Your task to perform on an android device: Go to privacy settings Image 0: 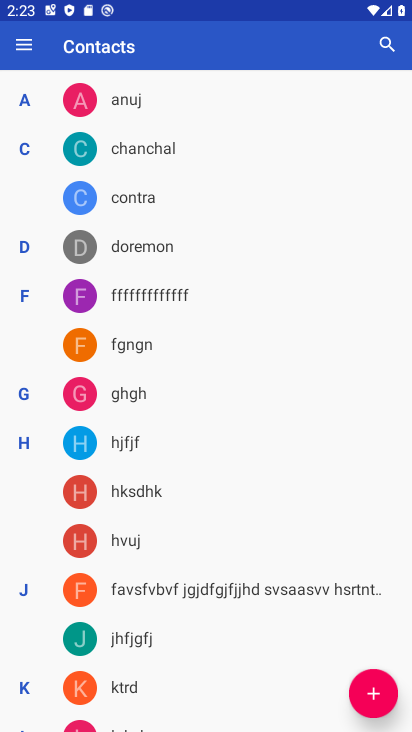
Step 0: press home button
Your task to perform on an android device: Go to privacy settings Image 1: 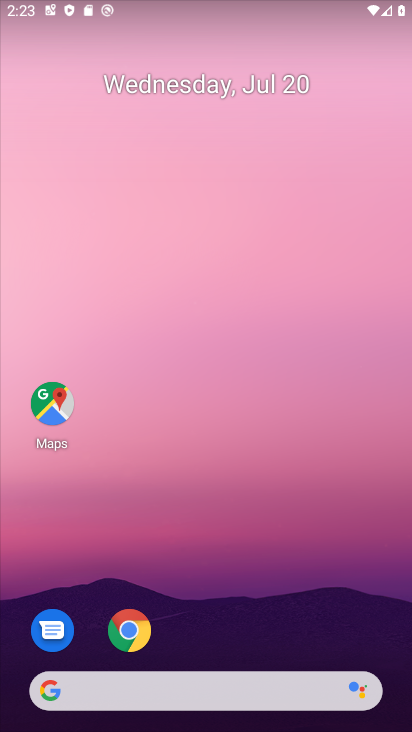
Step 1: drag from (375, 579) to (357, 131)
Your task to perform on an android device: Go to privacy settings Image 2: 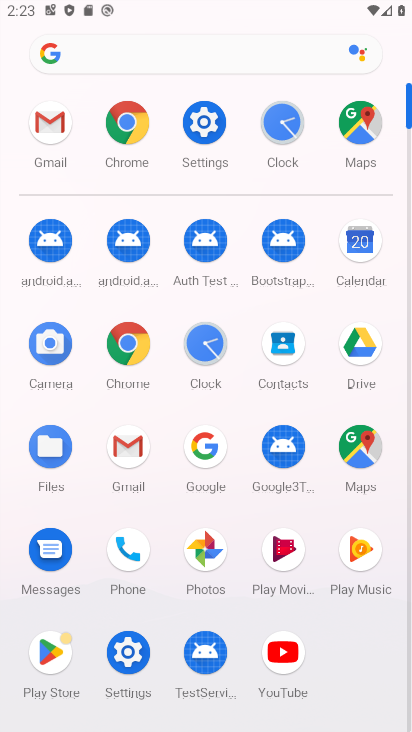
Step 2: click (213, 135)
Your task to perform on an android device: Go to privacy settings Image 3: 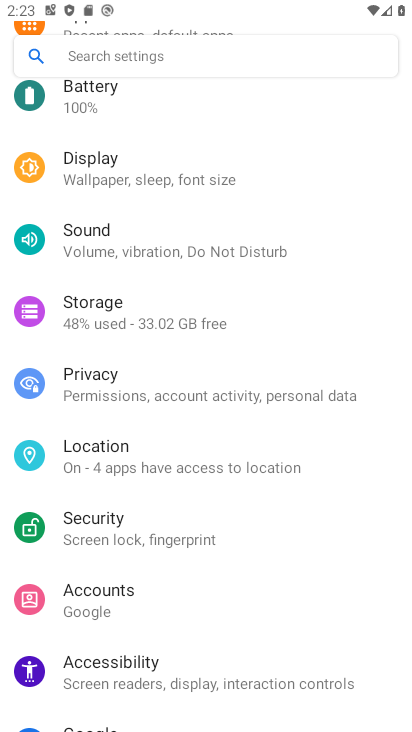
Step 3: drag from (330, 180) to (334, 269)
Your task to perform on an android device: Go to privacy settings Image 4: 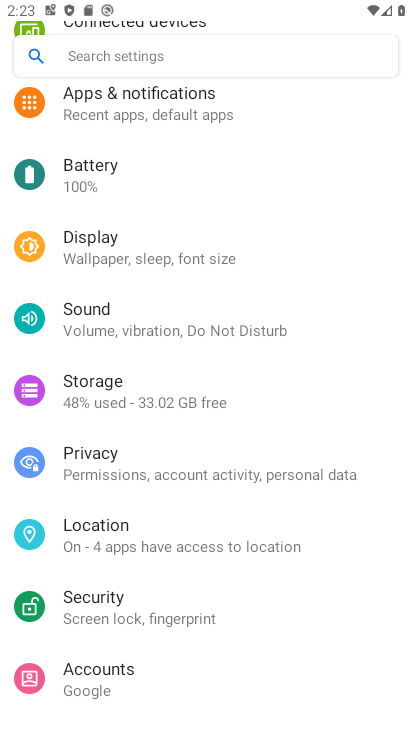
Step 4: drag from (346, 173) to (354, 285)
Your task to perform on an android device: Go to privacy settings Image 5: 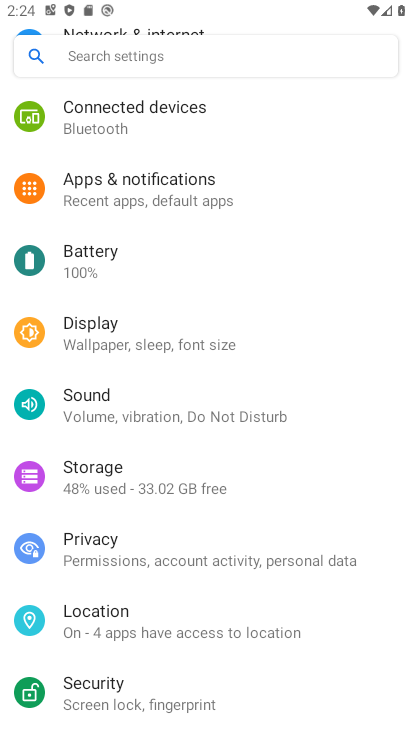
Step 5: drag from (338, 181) to (340, 285)
Your task to perform on an android device: Go to privacy settings Image 6: 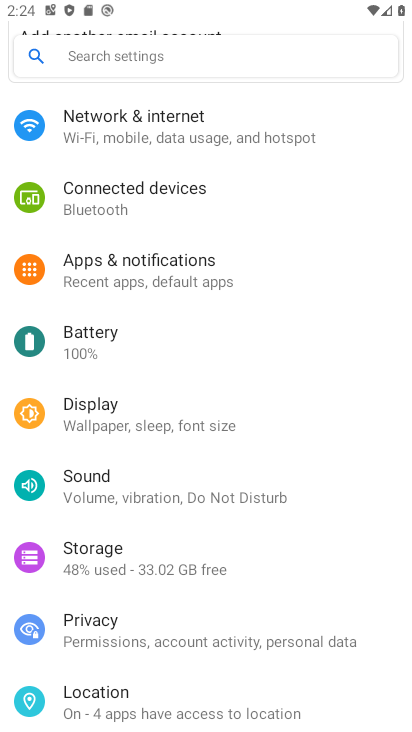
Step 6: drag from (348, 169) to (351, 279)
Your task to perform on an android device: Go to privacy settings Image 7: 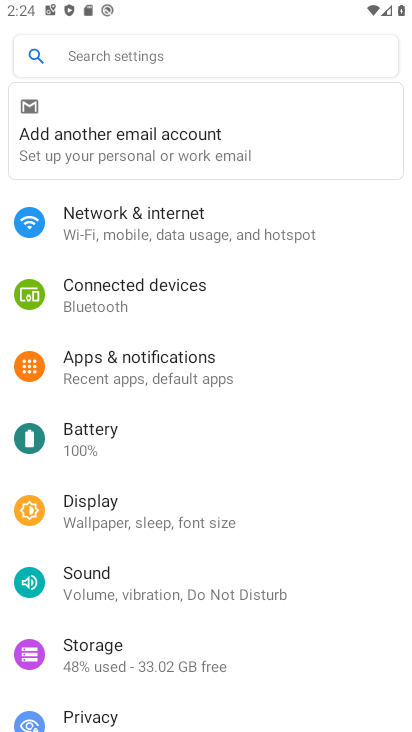
Step 7: drag from (339, 389) to (352, 255)
Your task to perform on an android device: Go to privacy settings Image 8: 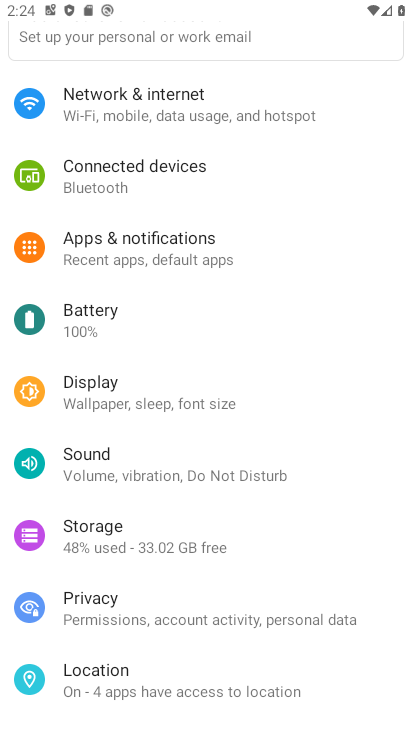
Step 8: drag from (337, 443) to (339, 320)
Your task to perform on an android device: Go to privacy settings Image 9: 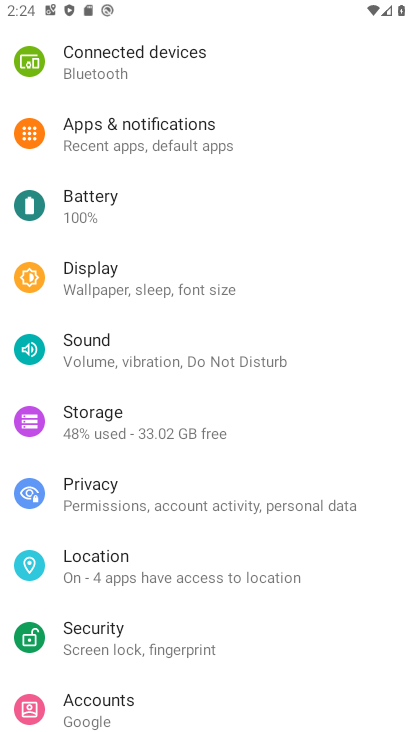
Step 9: drag from (339, 421) to (341, 325)
Your task to perform on an android device: Go to privacy settings Image 10: 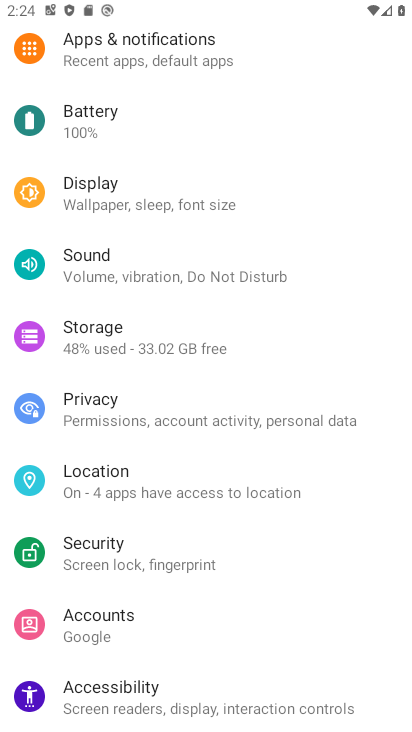
Step 10: drag from (335, 459) to (337, 313)
Your task to perform on an android device: Go to privacy settings Image 11: 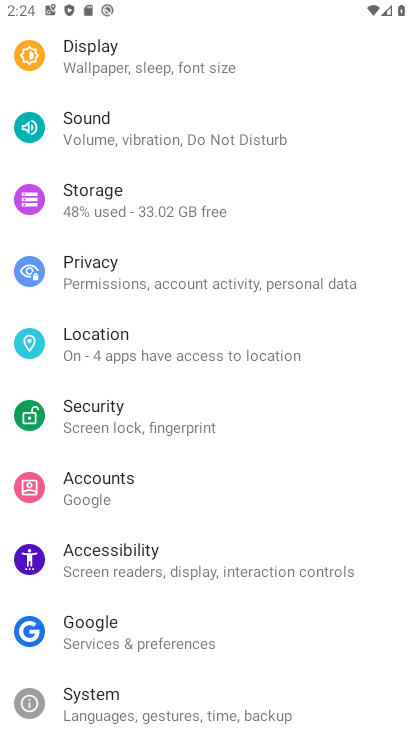
Step 11: drag from (348, 434) to (344, 323)
Your task to perform on an android device: Go to privacy settings Image 12: 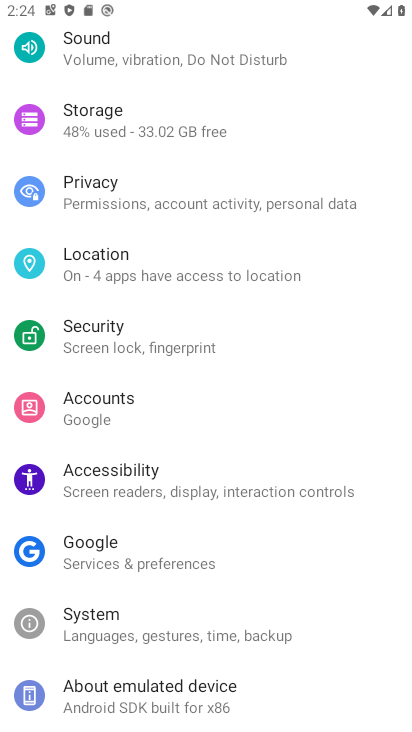
Step 12: drag from (348, 234) to (349, 382)
Your task to perform on an android device: Go to privacy settings Image 13: 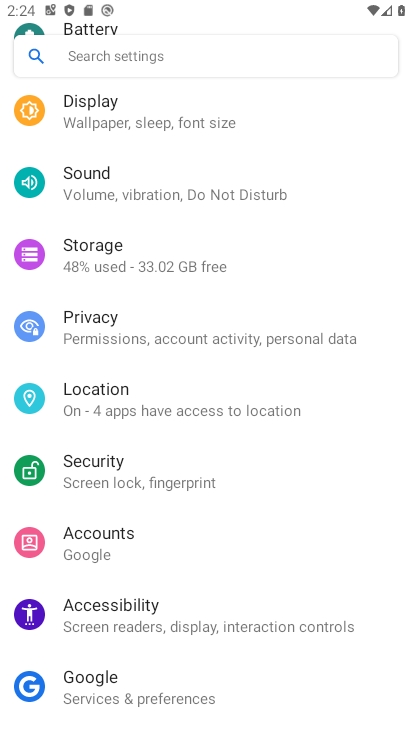
Step 13: drag from (350, 225) to (344, 369)
Your task to perform on an android device: Go to privacy settings Image 14: 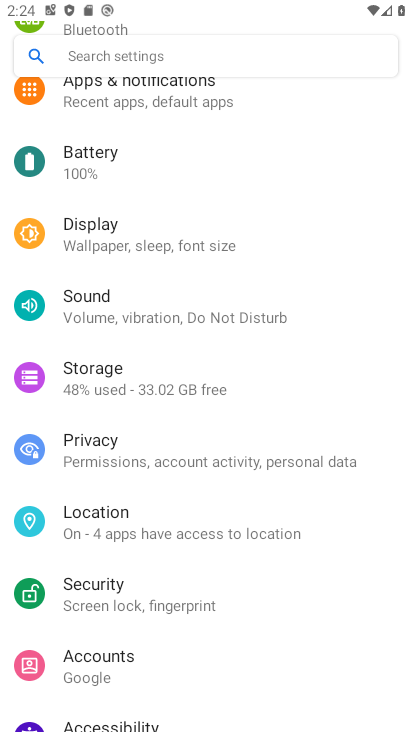
Step 14: click (256, 450)
Your task to perform on an android device: Go to privacy settings Image 15: 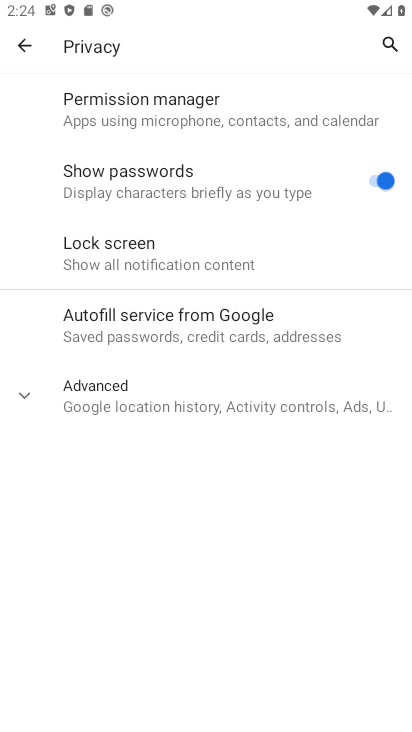
Step 15: click (210, 399)
Your task to perform on an android device: Go to privacy settings Image 16: 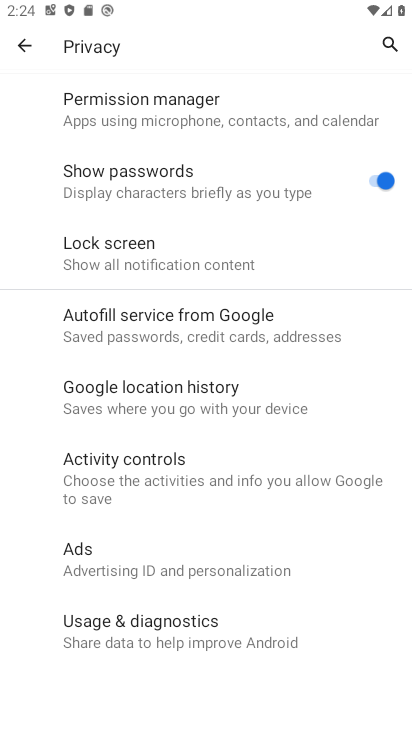
Step 16: task complete